Your task to perform on an android device: empty trash in google photos Image 0: 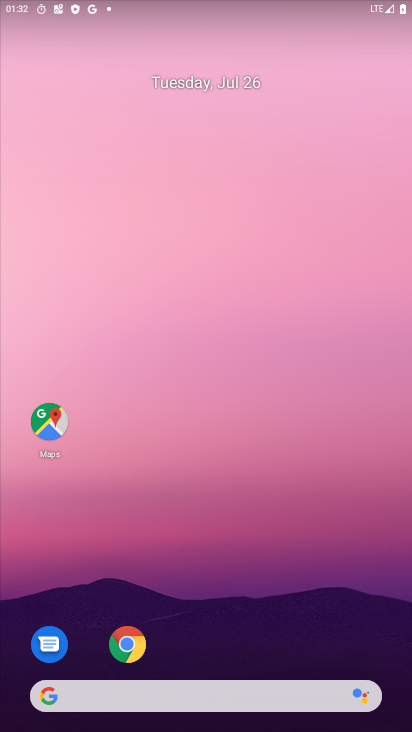
Step 0: drag from (237, 672) to (250, 102)
Your task to perform on an android device: empty trash in google photos Image 1: 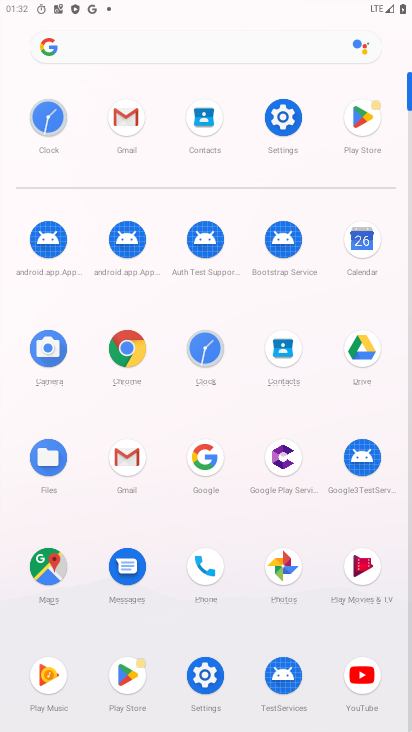
Step 1: click (286, 578)
Your task to perform on an android device: empty trash in google photos Image 2: 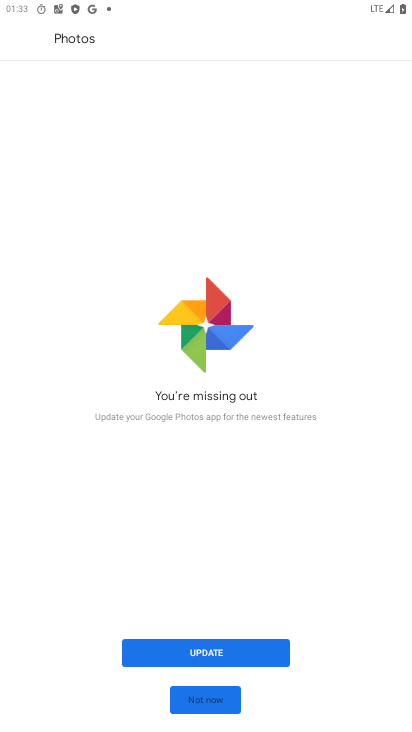
Step 2: click (201, 699)
Your task to perform on an android device: empty trash in google photos Image 3: 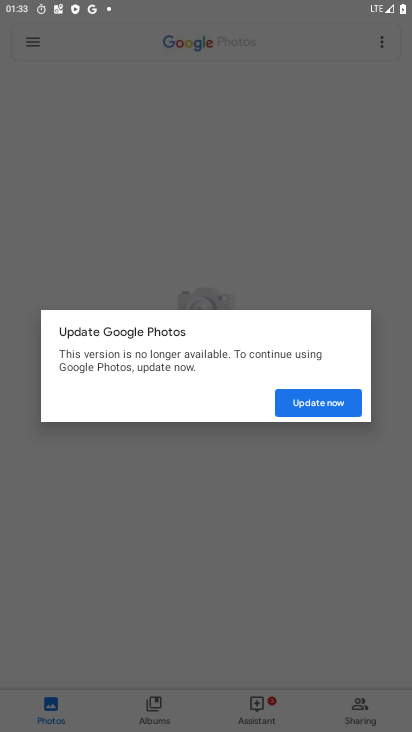
Step 3: click (309, 403)
Your task to perform on an android device: empty trash in google photos Image 4: 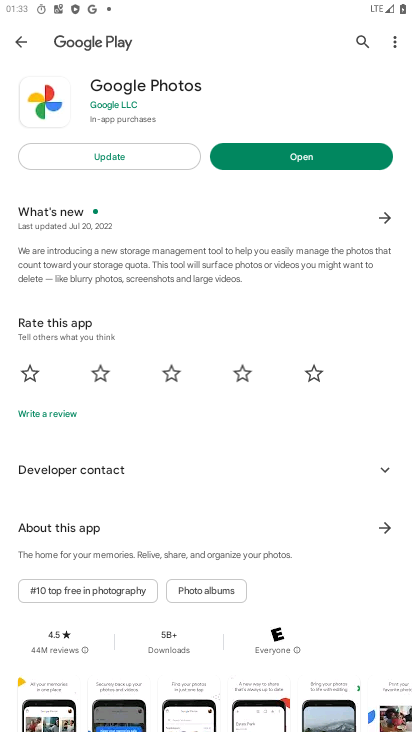
Step 4: click (267, 160)
Your task to perform on an android device: empty trash in google photos Image 5: 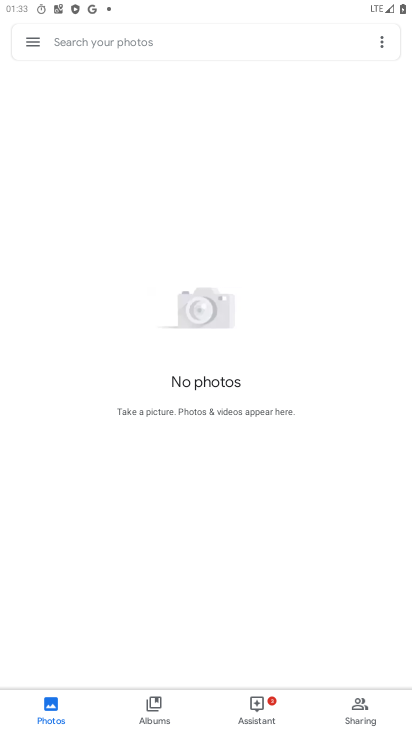
Step 5: click (37, 50)
Your task to perform on an android device: empty trash in google photos Image 6: 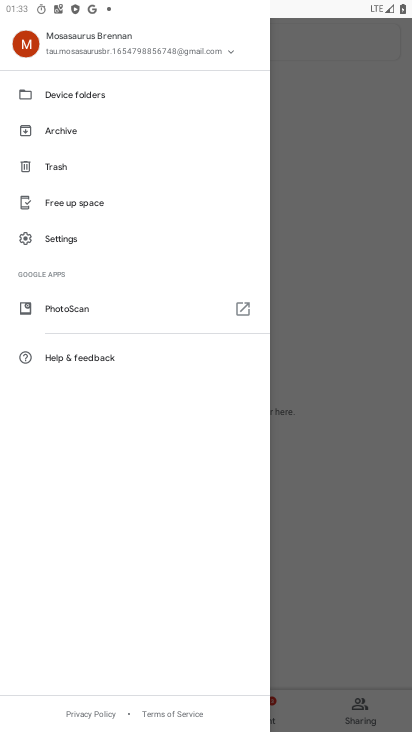
Step 6: click (56, 162)
Your task to perform on an android device: empty trash in google photos Image 7: 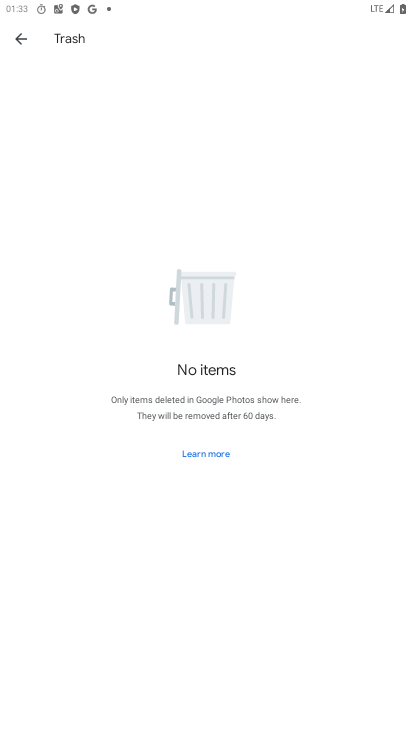
Step 7: task complete